Your task to perform on an android device: add a contact in the contacts app Image 0: 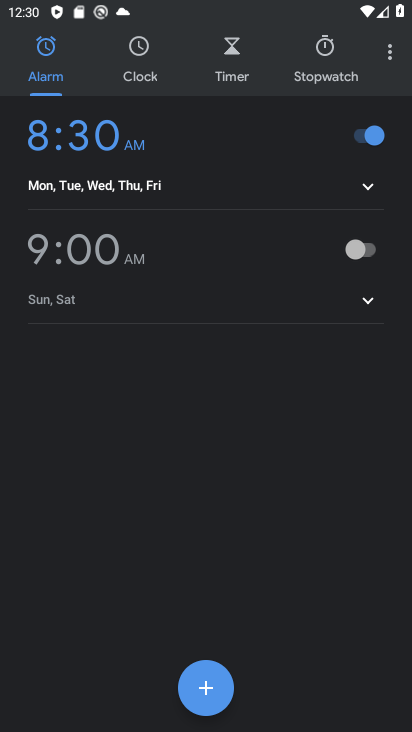
Step 0: press home button
Your task to perform on an android device: add a contact in the contacts app Image 1: 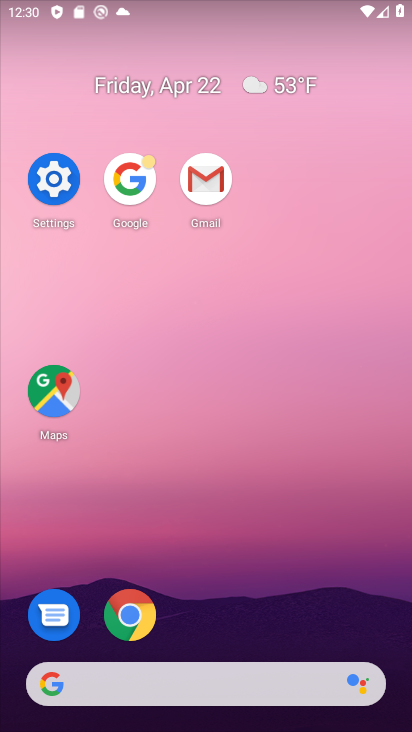
Step 1: drag from (234, 632) to (194, 181)
Your task to perform on an android device: add a contact in the contacts app Image 2: 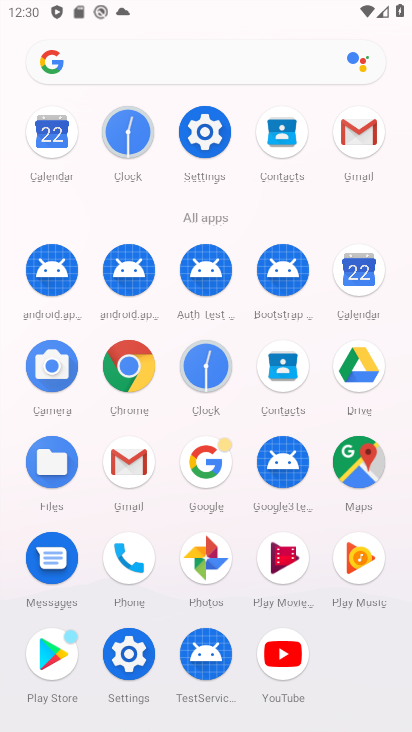
Step 2: drag from (275, 366) to (328, 368)
Your task to perform on an android device: add a contact in the contacts app Image 3: 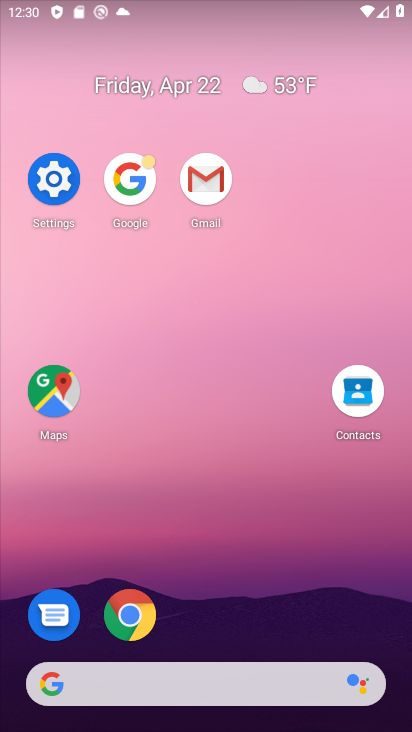
Step 3: click (360, 385)
Your task to perform on an android device: add a contact in the contacts app Image 4: 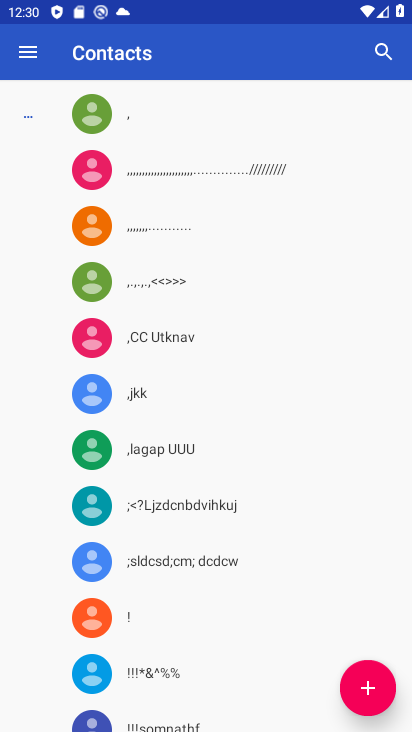
Step 4: click (372, 671)
Your task to perform on an android device: add a contact in the contacts app Image 5: 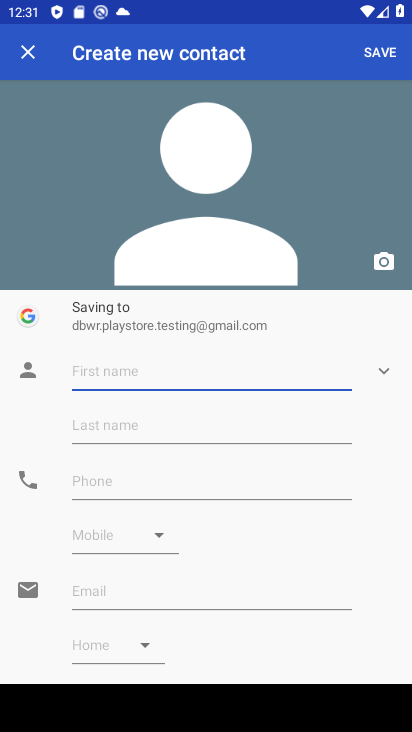
Step 5: type "actions"
Your task to perform on an android device: add a contact in the contacts app Image 6: 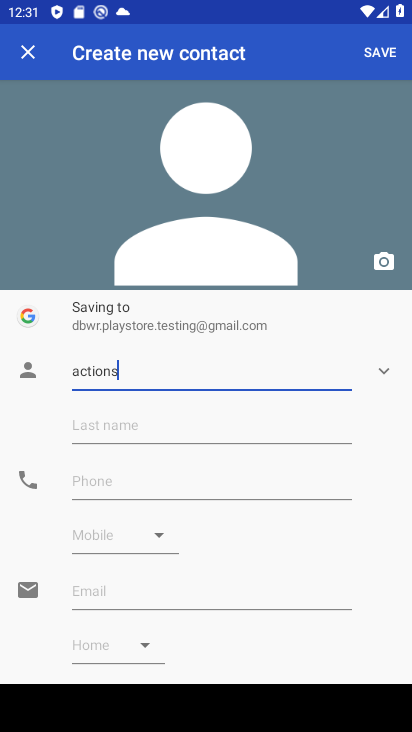
Step 6: click (170, 486)
Your task to perform on an android device: add a contact in the contacts app Image 7: 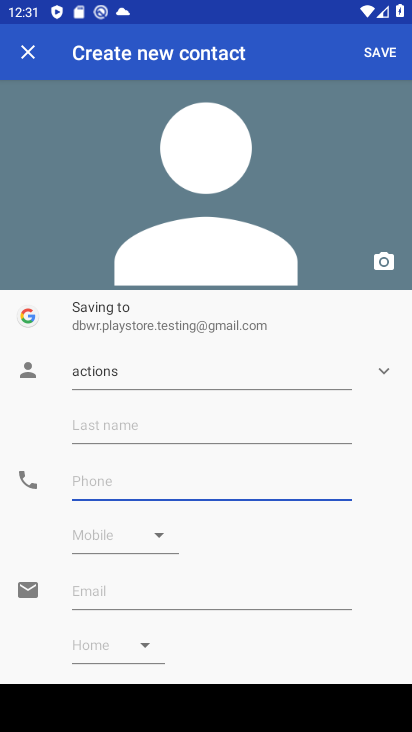
Step 7: type "91123456778"
Your task to perform on an android device: add a contact in the contacts app Image 8: 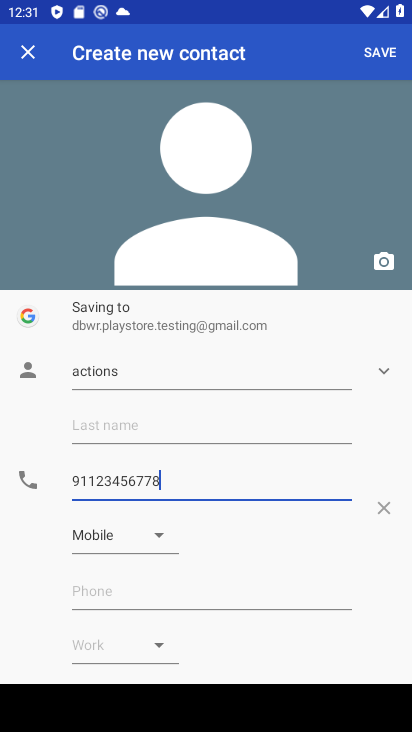
Step 8: click (393, 53)
Your task to perform on an android device: add a contact in the contacts app Image 9: 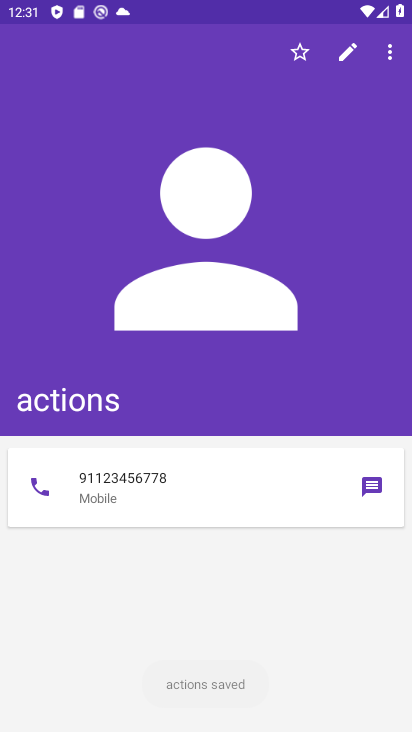
Step 9: task complete